Your task to perform on an android device: turn vacation reply on in the gmail app Image 0: 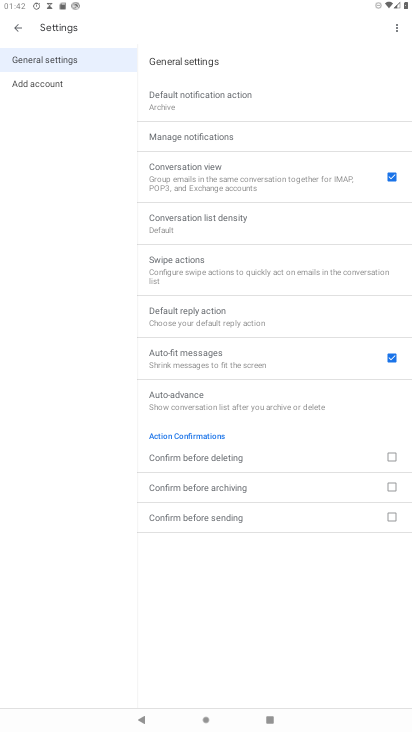
Step 0: press home button
Your task to perform on an android device: turn vacation reply on in the gmail app Image 1: 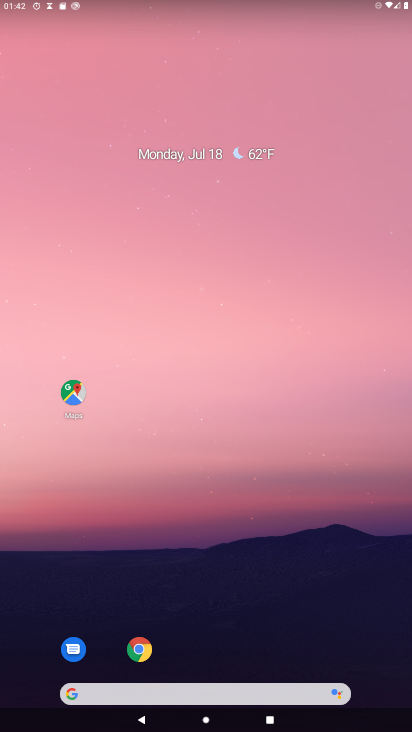
Step 1: drag from (40, 687) to (183, 46)
Your task to perform on an android device: turn vacation reply on in the gmail app Image 2: 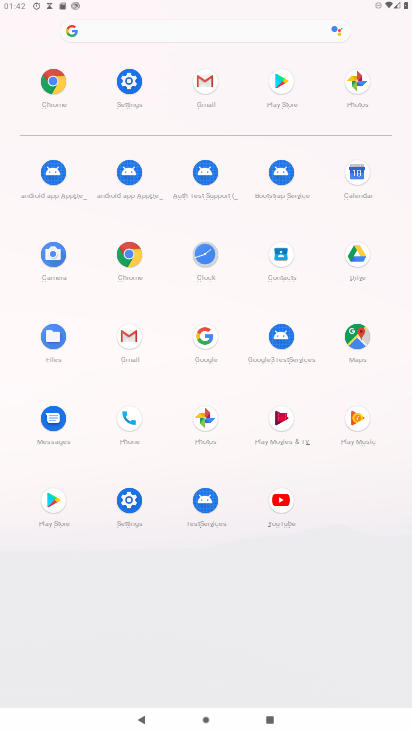
Step 2: click (130, 341)
Your task to perform on an android device: turn vacation reply on in the gmail app Image 3: 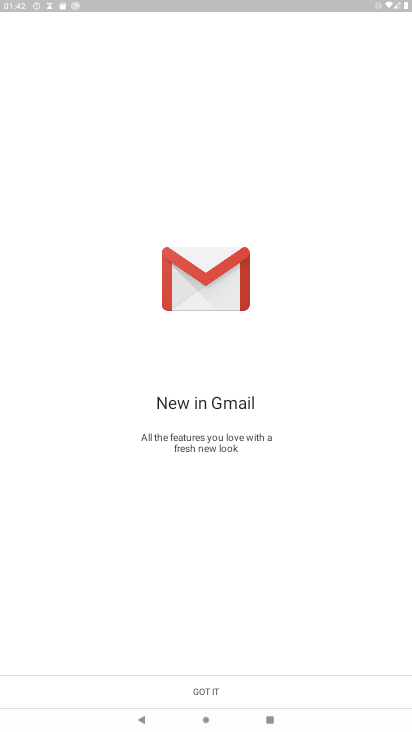
Step 3: click (206, 685)
Your task to perform on an android device: turn vacation reply on in the gmail app Image 4: 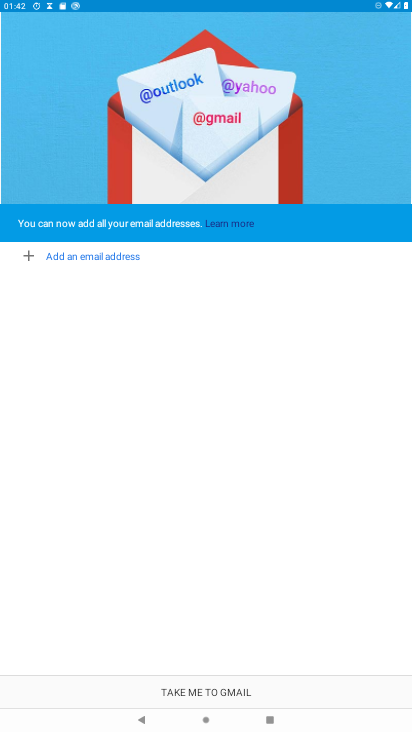
Step 4: click (198, 692)
Your task to perform on an android device: turn vacation reply on in the gmail app Image 5: 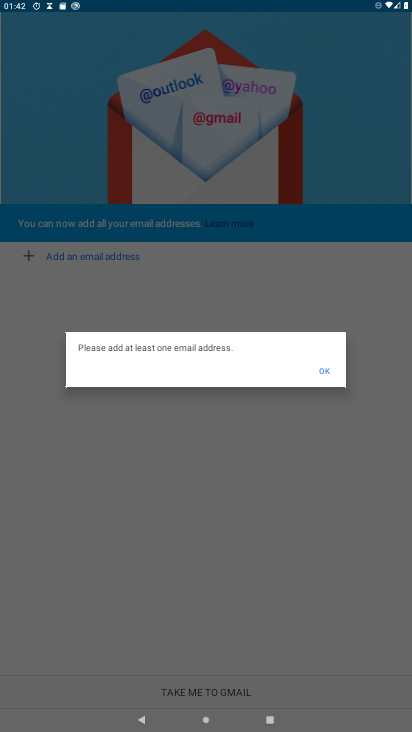
Step 5: task complete